Your task to perform on an android device: toggle improve location accuracy Image 0: 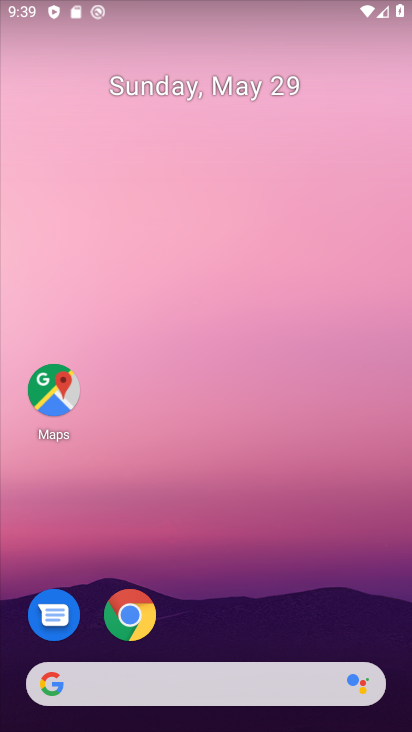
Step 0: drag from (212, 652) to (269, 10)
Your task to perform on an android device: toggle improve location accuracy Image 1: 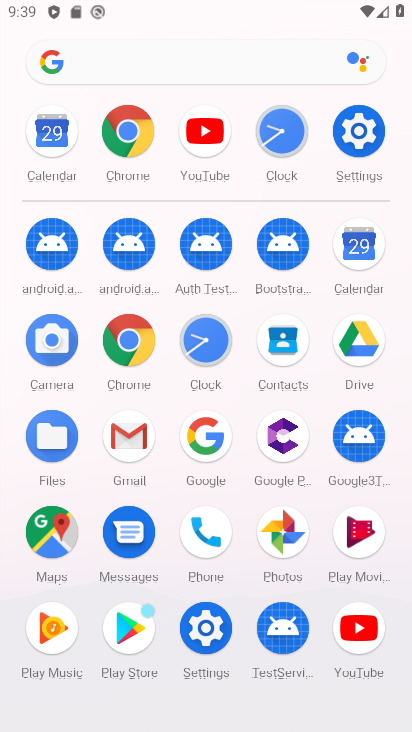
Step 1: click (361, 144)
Your task to perform on an android device: toggle improve location accuracy Image 2: 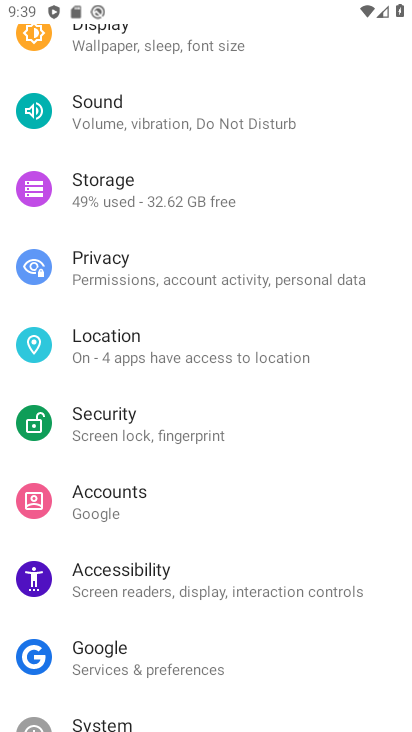
Step 2: click (121, 322)
Your task to perform on an android device: toggle improve location accuracy Image 3: 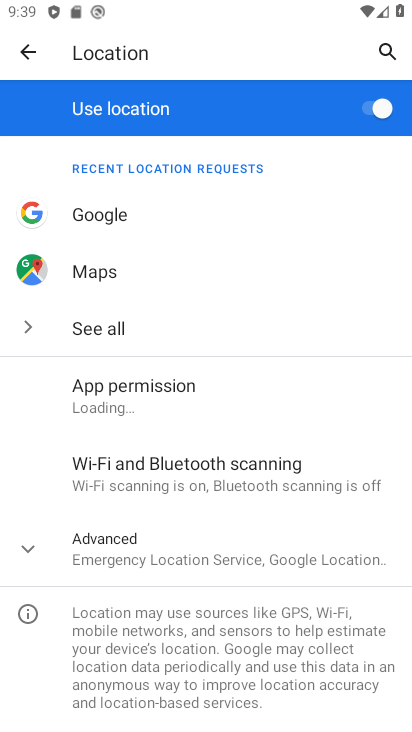
Step 3: click (126, 527)
Your task to perform on an android device: toggle improve location accuracy Image 4: 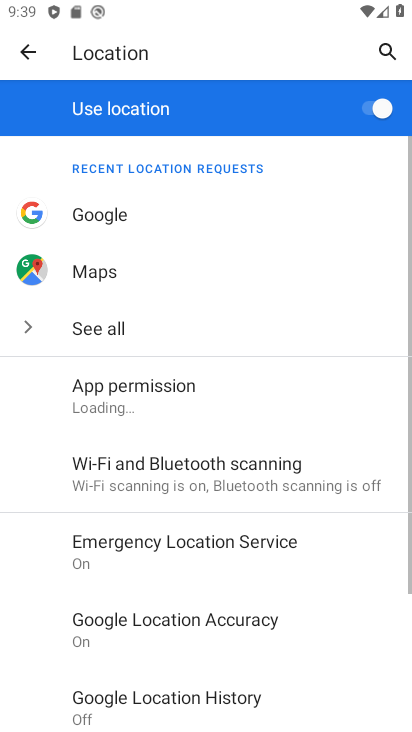
Step 4: drag from (125, 527) to (127, 294)
Your task to perform on an android device: toggle improve location accuracy Image 5: 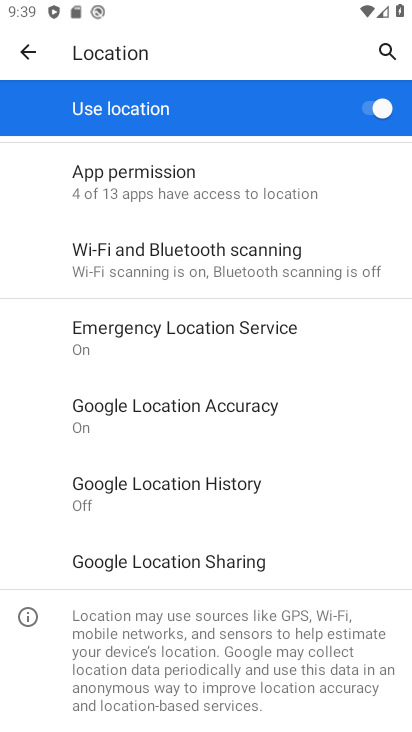
Step 5: click (184, 399)
Your task to perform on an android device: toggle improve location accuracy Image 6: 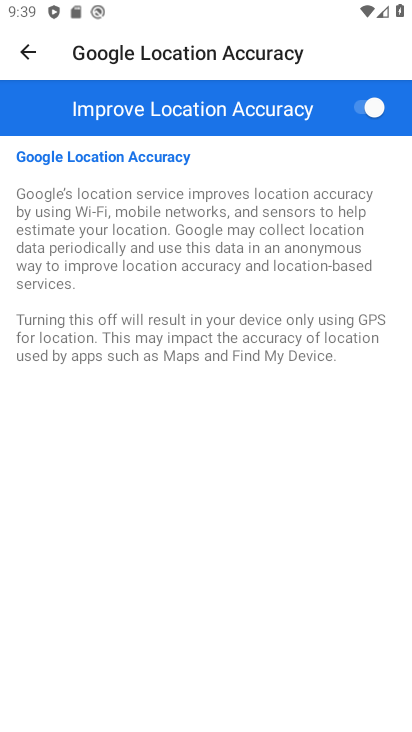
Step 6: click (365, 114)
Your task to perform on an android device: toggle improve location accuracy Image 7: 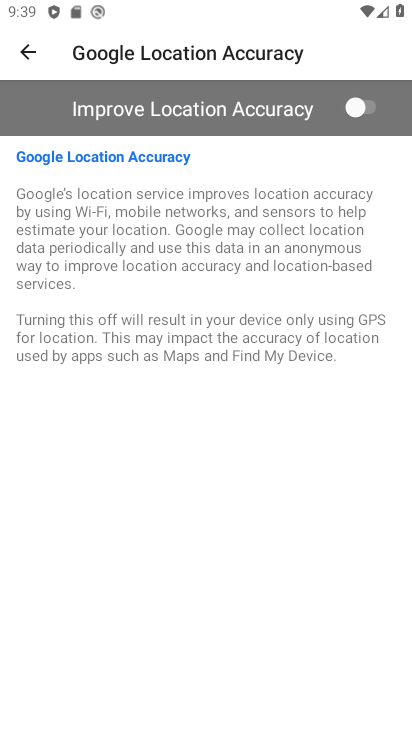
Step 7: task complete